Your task to perform on an android device: stop showing notifications on the lock screen Image 0: 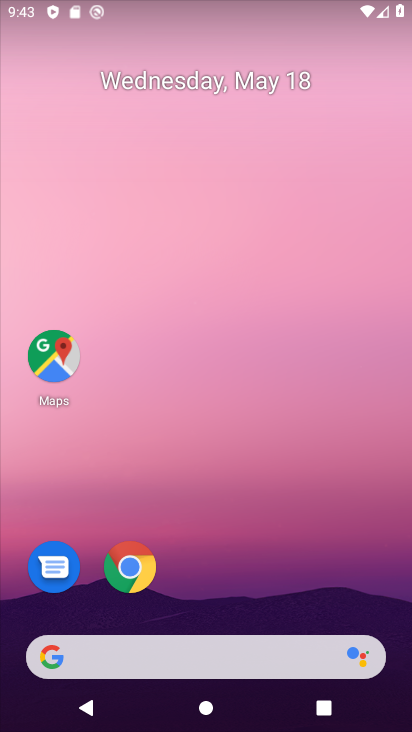
Step 0: drag from (231, 601) to (208, 96)
Your task to perform on an android device: stop showing notifications on the lock screen Image 1: 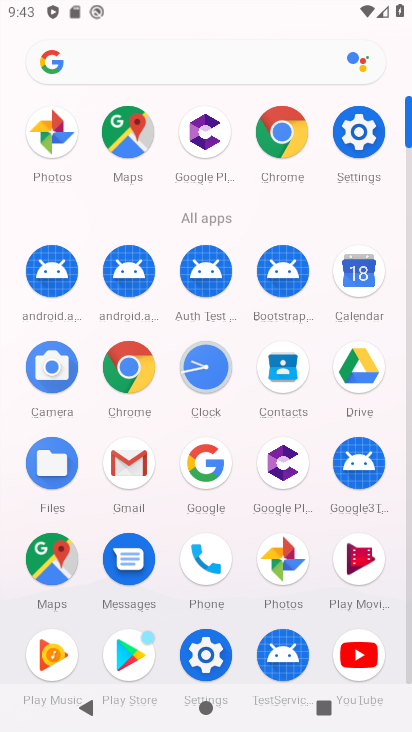
Step 1: click (358, 148)
Your task to perform on an android device: stop showing notifications on the lock screen Image 2: 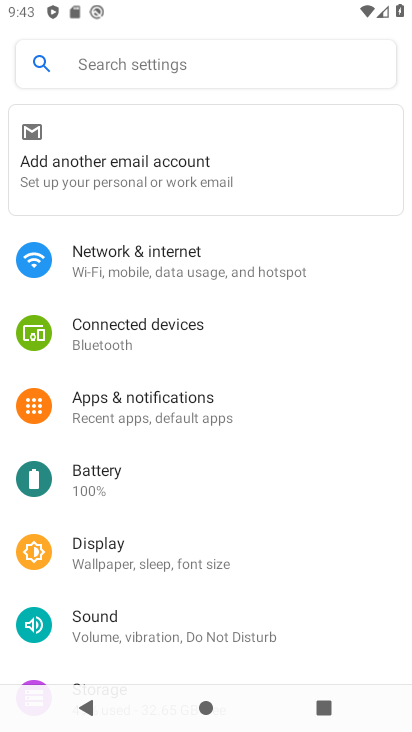
Step 2: click (169, 409)
Your task to perform on an android device: stop showing notifications on the lock screen Image 3: 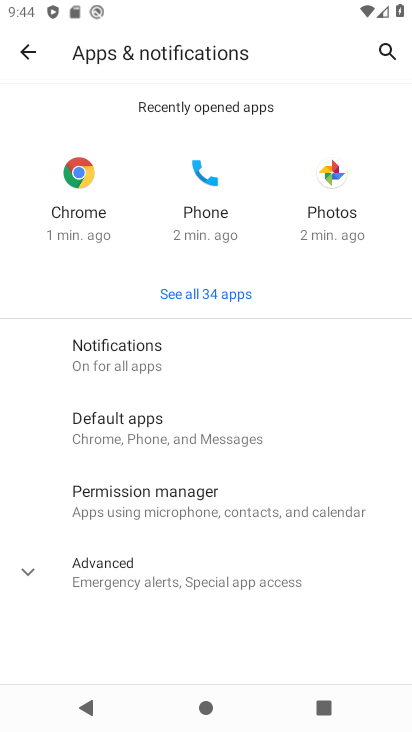
Step 3: click (109, 369)
Your task to perform on an android device: stop showing notifications on the lock screen Image 4: 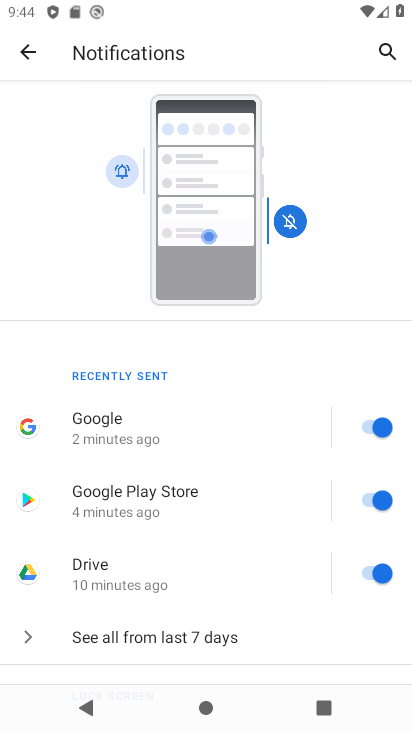
Step 4: drag from (142, 561) to (90, 81)
Your task to perform on an android device: stop showing notifications on the lock screen Image 5: 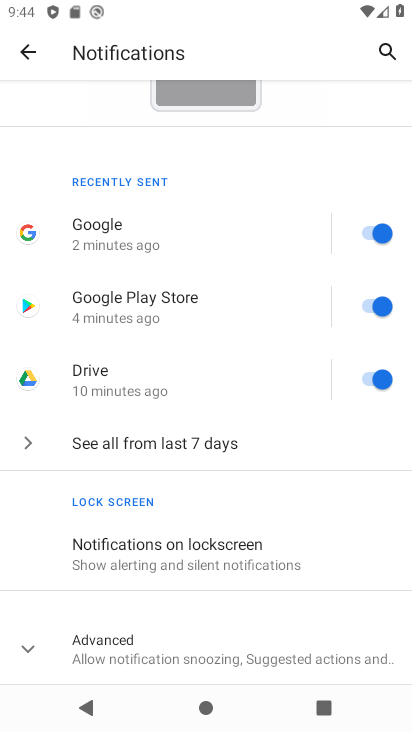
Step 5: click (166, 559)
Your task to perform on an android device: stop showing notifications on the lock screen Image 6: 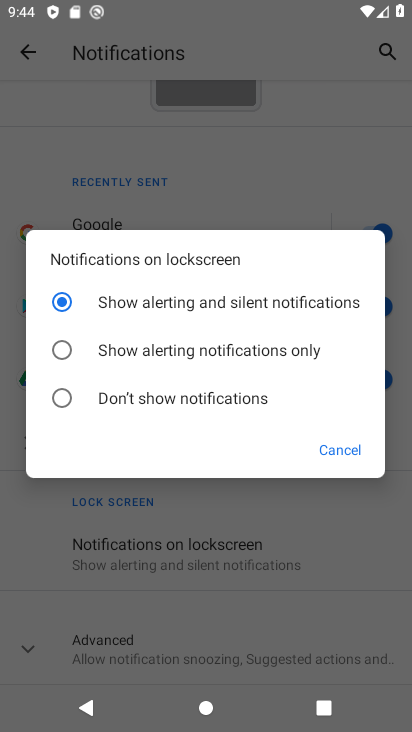
Step 6: click (63, 392)
Your task to perform on an android device: stop showing notifications on the lock screen Image 7: 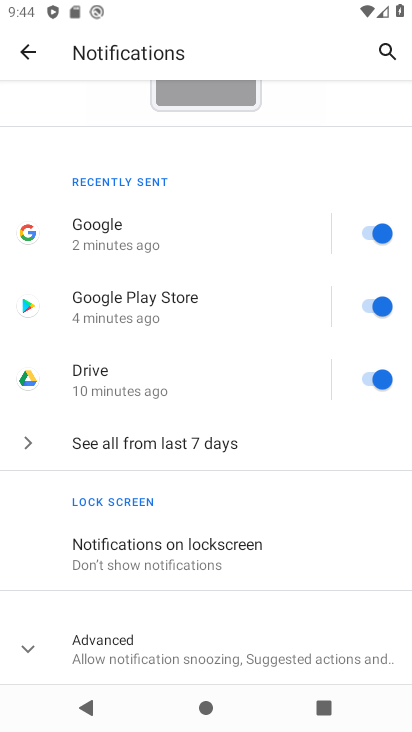
Step 7: task complete